Your task to perform on an android device: turn notification dots on Image 0: 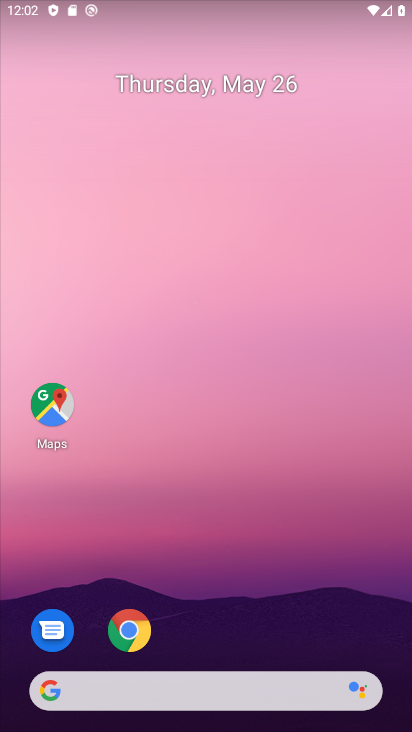
Step 0: drag from (178, 662) to (390, 75)
Your task to perform on an android device: turn notification dots on Image 1: 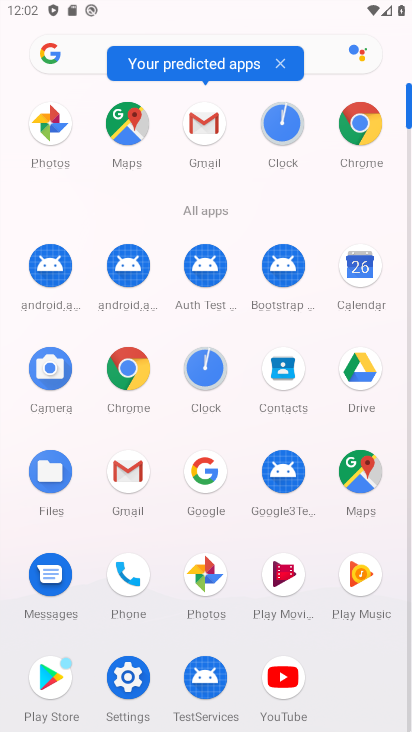
Step 1: click (128, 692)
Your task to perform on an android device: turn notification dots on Image 2: 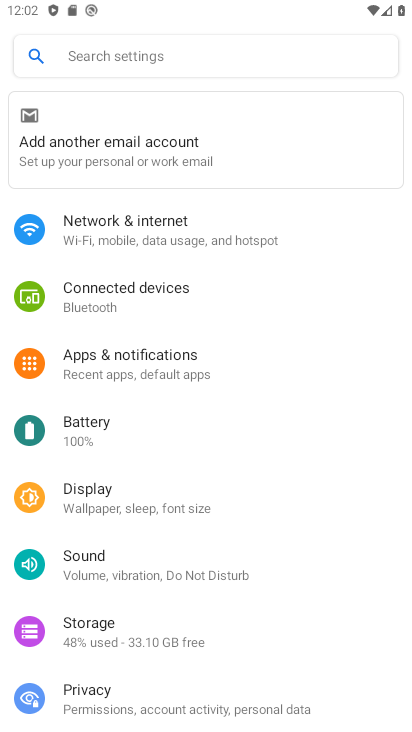
Step 2: click (192, 362)
Your task to perform on an android device: turn notification dots on Image 3: 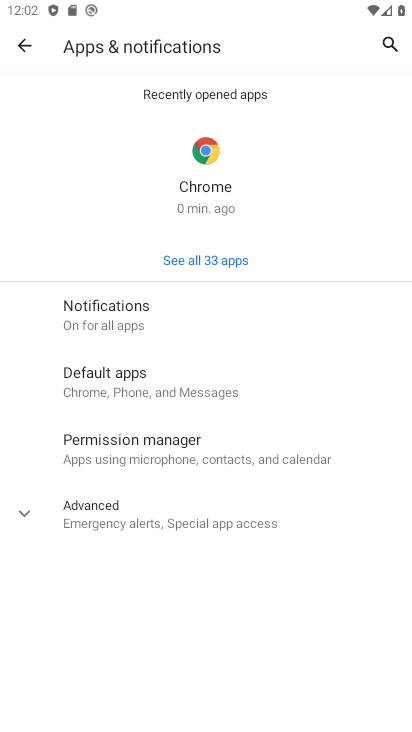
Step 3: click (214, 313)
Your task to perform on an android device: turn notification dots on Image 4: 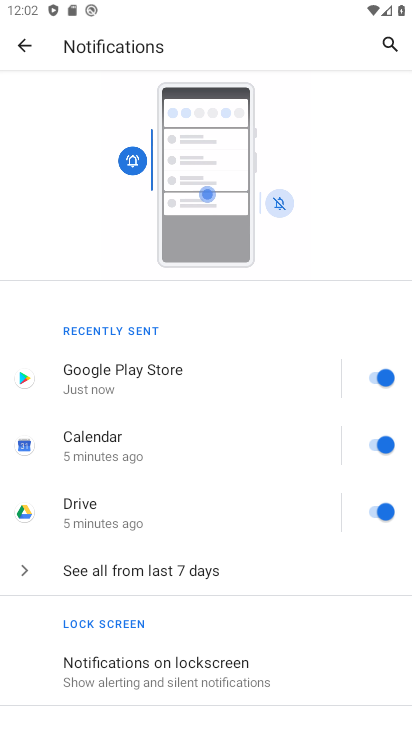
Step 4: drag from (197, 668) to (345, 260)
Your task to perform on an android device: turn notification dots on Image 5: 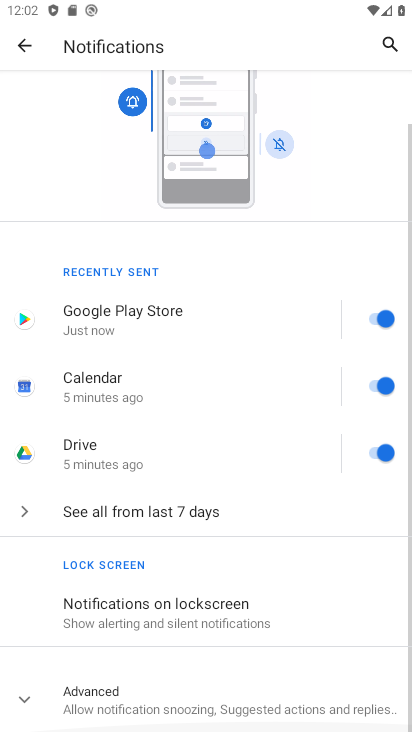
Step 5: click (139, 691)
Your task to perform on an android device: turn notification dots on Image 6: 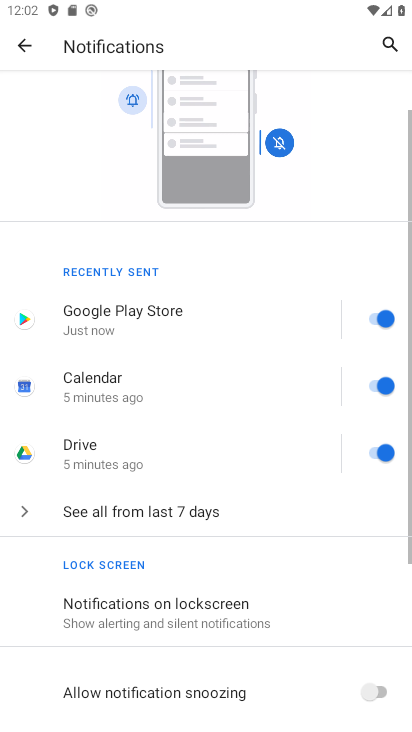
Step 6: task complete